Your task to perform on an android device: Open maps Image 0: 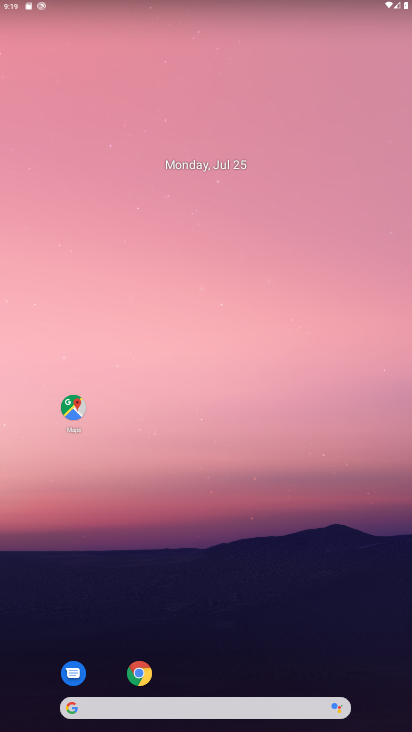
Step 0: click (65, 402)
Your task to perform on an android device: Open maps Image 1: 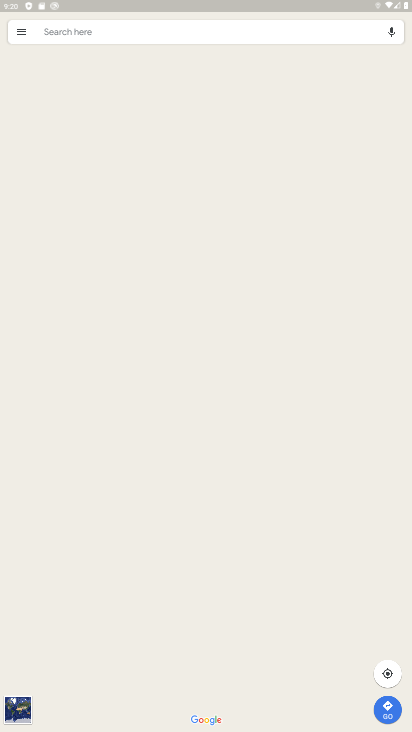
Step 1: task complete